Your task to perform on an android device: Search for pizza restaurants on Maps Image 0: 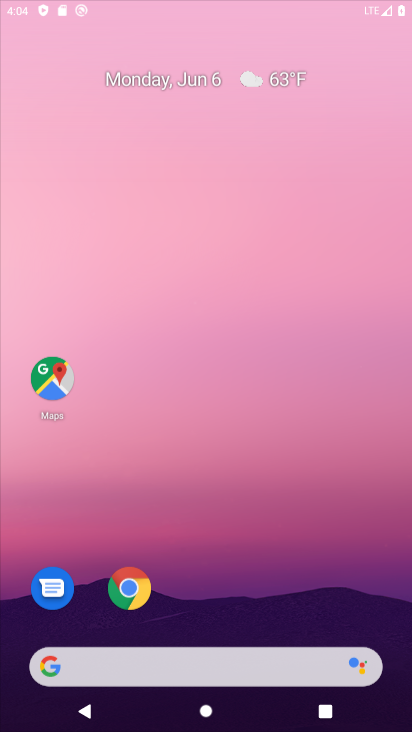
Step 0: press back button
Your task to perform on an android device: Search for pizza restaurants on Maps Image 1: 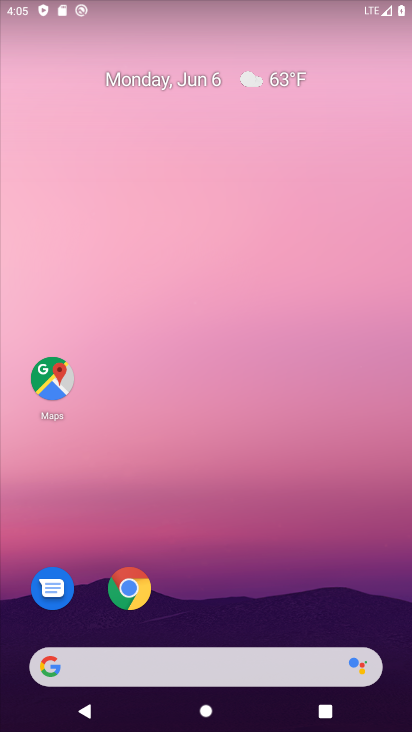
Step 1: drag from (252, 689) to (185, 82)
Your task to perform on an android device: Search for pizza restaurants on Maps Image 2: 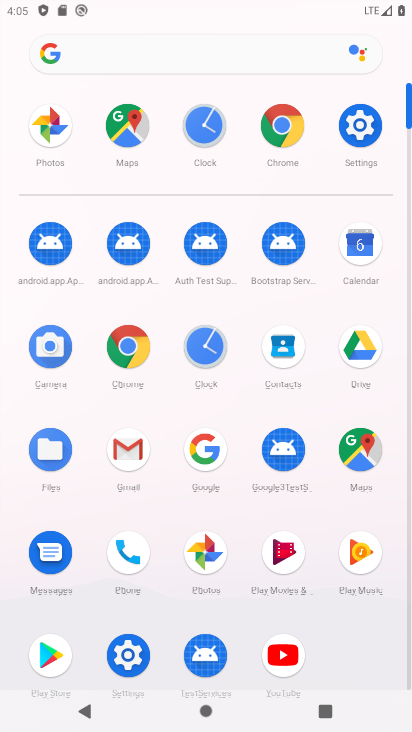
Step 2: click (360, 454)
Your task to perform on an android device: Search for pizza restaurants on Maps Image 3: 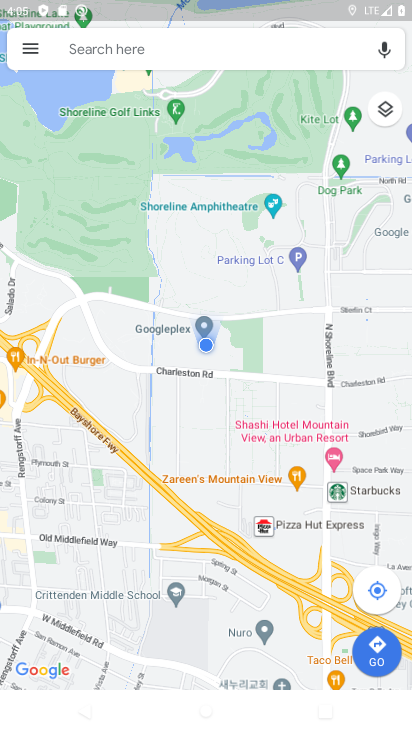
Step 3: click (82, 48)
Your task to perform on an android device: Search for pizza restaurants on Maps Image 4: 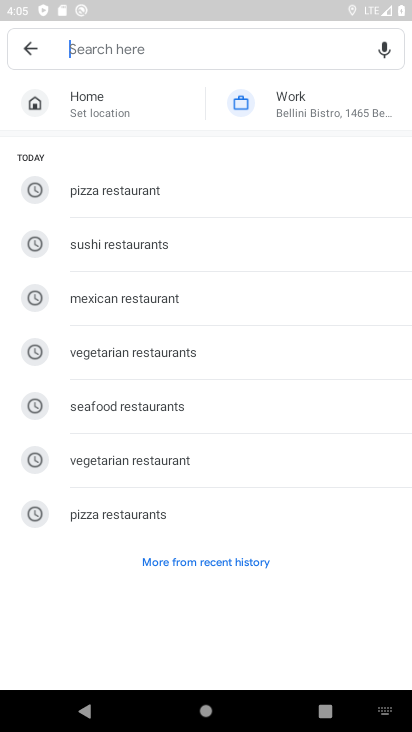
Step 4: type "pizza restaurants"
Your task to perform on an android device: Search for pizza restaurants on Maps Image 5: 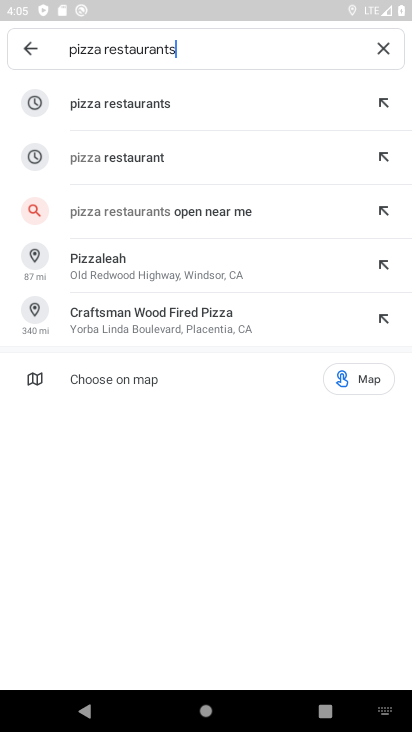
Step 5: click (108, 113)
Your task to perform on an android device: Search for pizza restaurants on Maps Image 6: 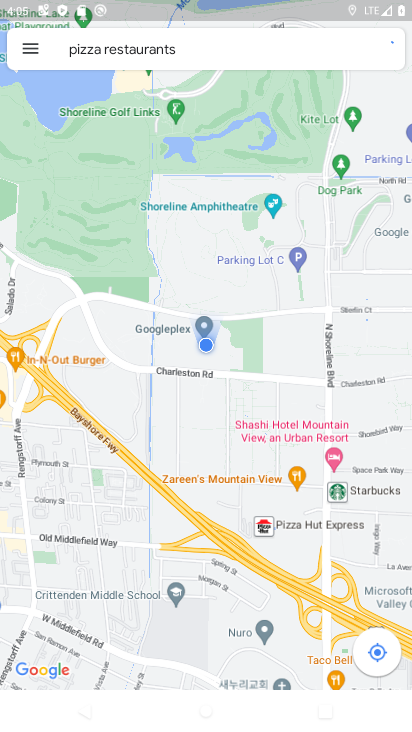
Step 6: task complete